Your task to perform on an android device: change the clock display to analog Image 0: 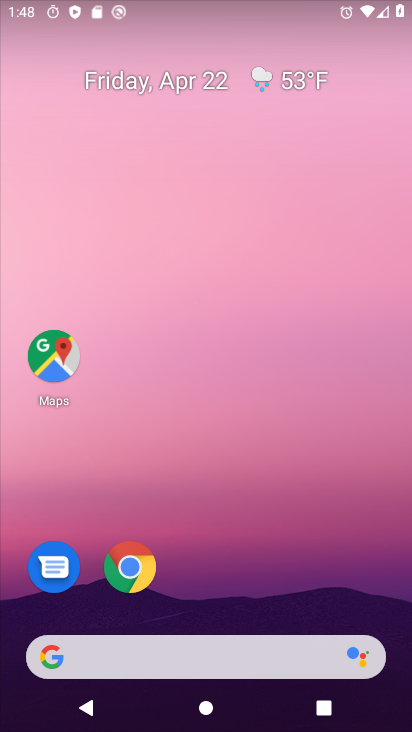
Step 0: drag from (295, 494) to (332, 88)
Your task to perform on an android device: change the clock display to analog Image 1: 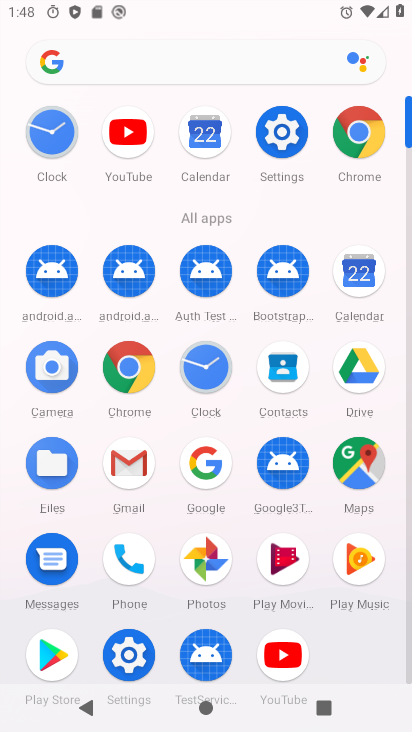
Step 1: click (62, 129)
Your task to perform on an android device: change the clock display to analog Image 2: 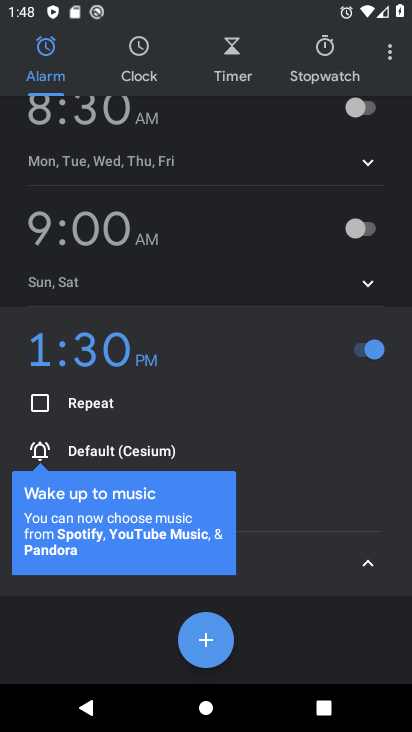
Step 2: click (389, 60)
Your task to perform on an android device: change the clock display to analog Image 3: 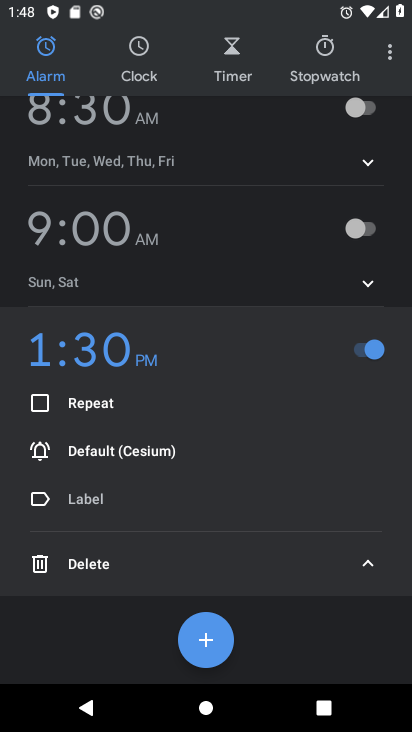
Step 3: click (389, 60)
Your task to perform on an android device: change the clock display to analog Image 4: 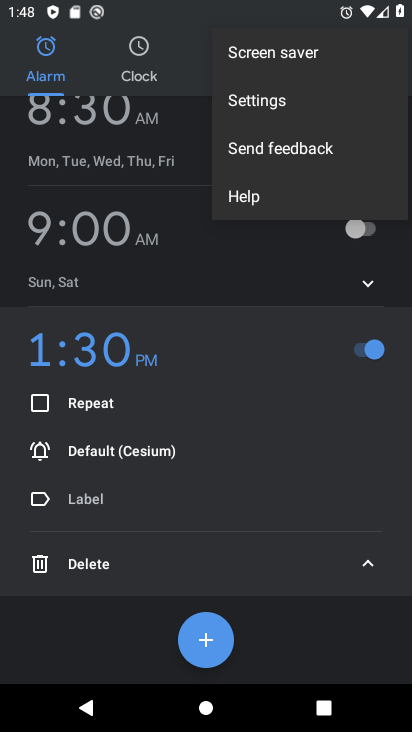
Step 4: click (305, 106)
Your task to perform on an android device: change the clock display to analog Image 5: 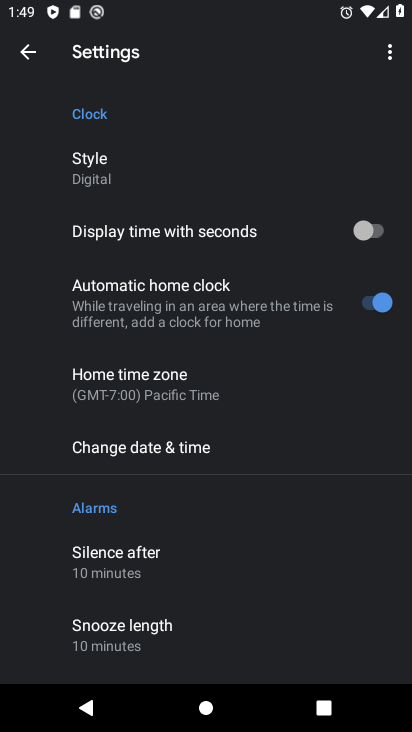
Step 5: click (205, 170)
Your task to perform on an android device: change the clock display to analog Image 6: 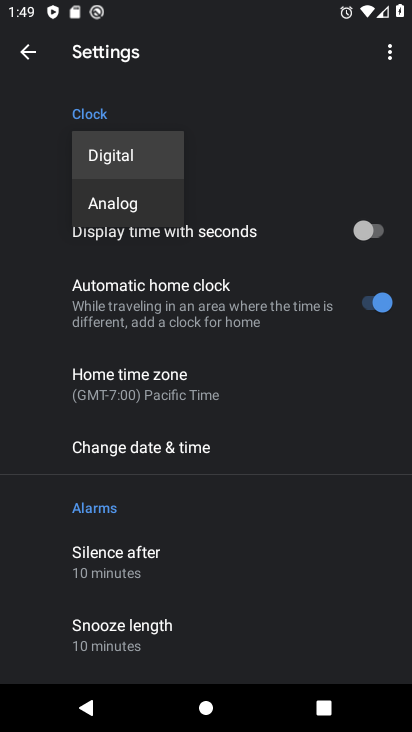
Step 6: click (160, 201)
Your task to perform on an android device: change the clock display to analog Image 7: 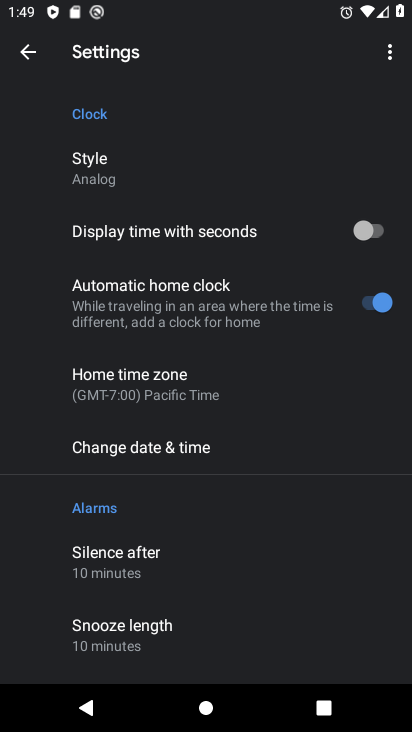
Step 7: click (33, 53)
Your task to perform on an android device: change the clock display to analog Image 8: 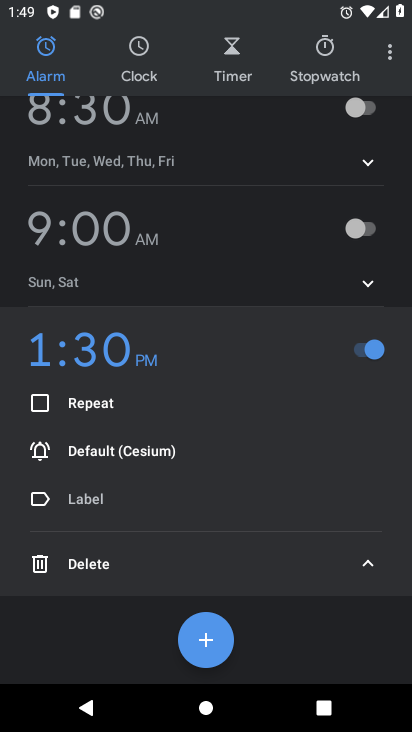
Step 8: click (147, 59)
Your task to perform on an android device: change the clock display to analog Image 9: 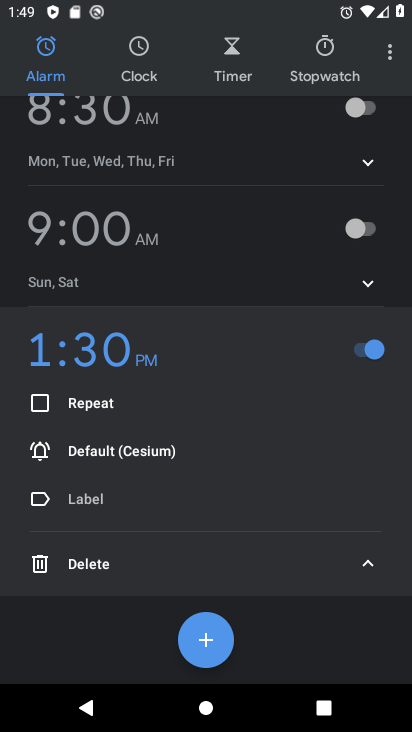
Step 9: click (144, 45)
Your task to perform on an android device: change the clock display to analog Image 10: 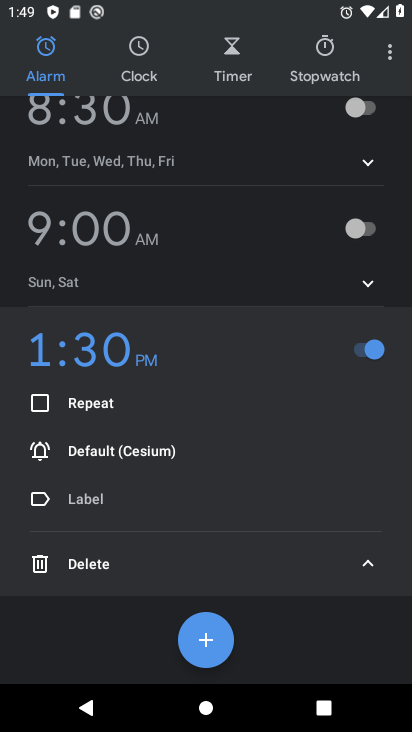
Step 10: click (144, 45)
Your task to perform on an android device: change the clock display to analog Image 11: 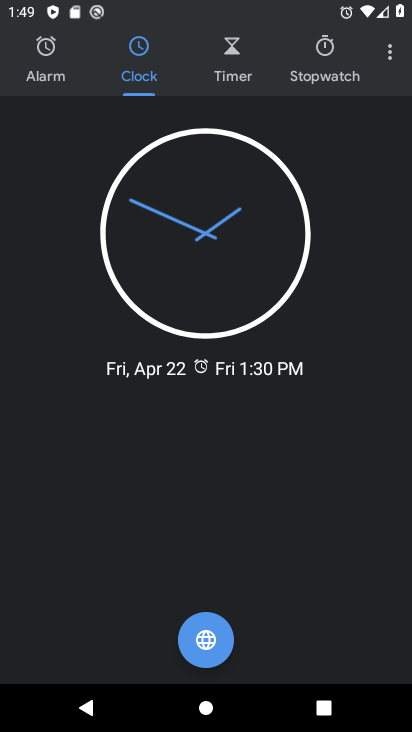
Step 11: task complete